Your task to perform on an android device: Search for the best selling jewelry on Etsy. Image 0: 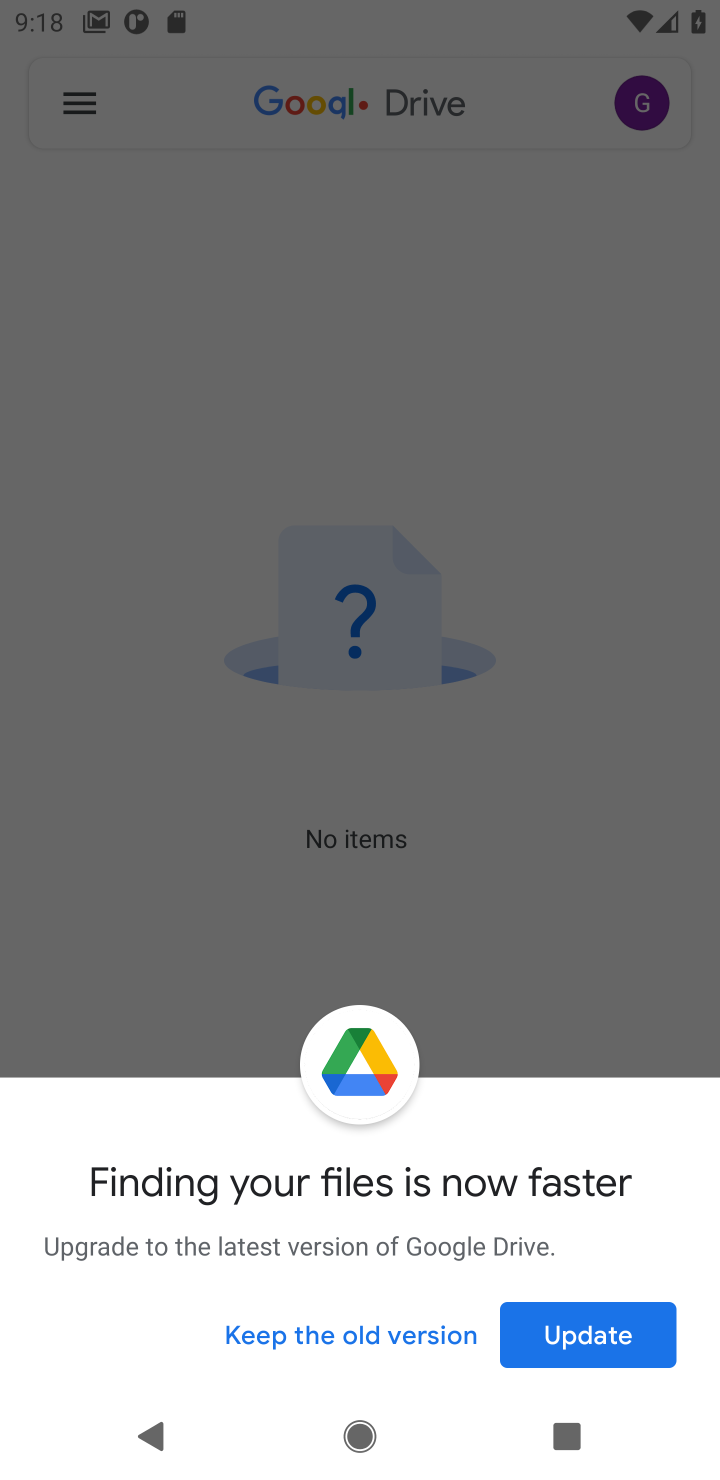
Step 0: press home button
Your task to perform on an android device: Search for the best selling jewelry on Etsy. Image 1: 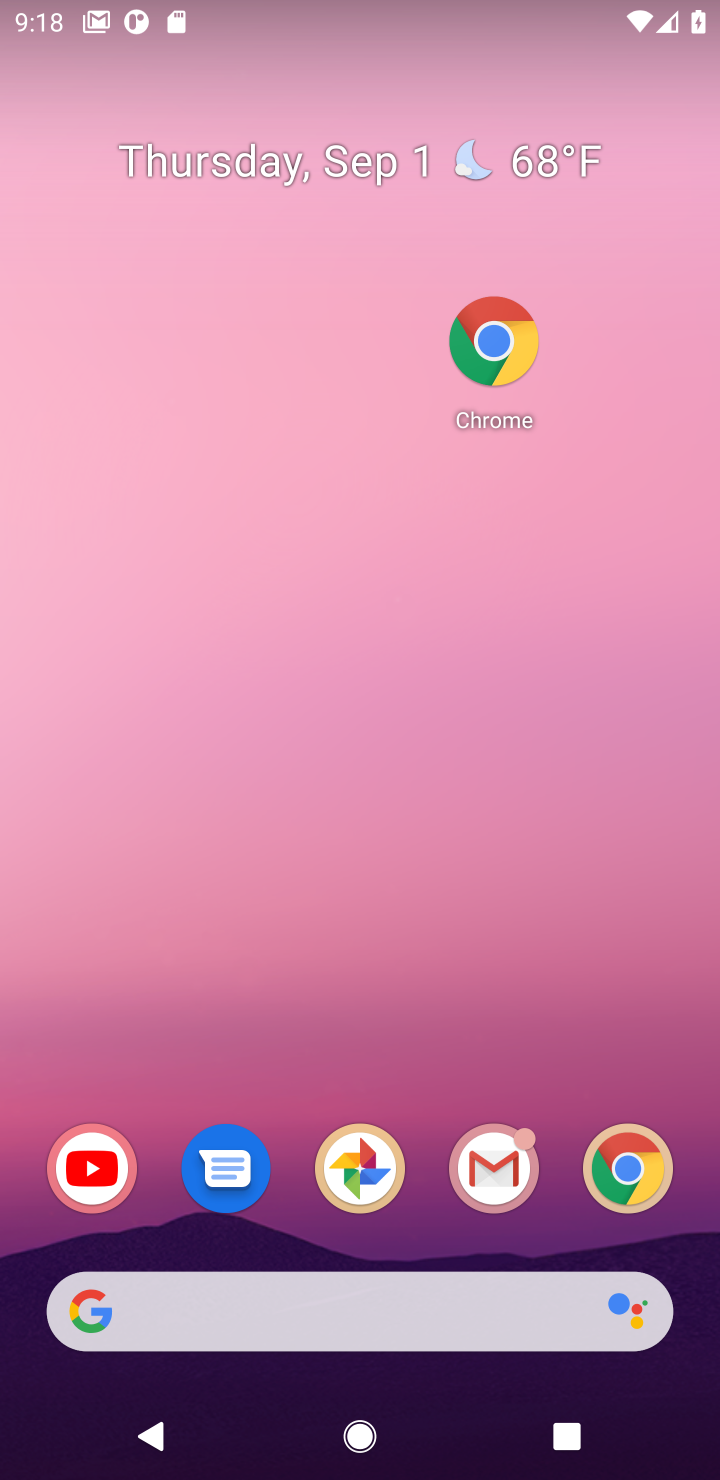
Step 1: click (299, 350)
Your task to perform on an android device: Search for the best selling jewelry on Etsy. Image 2: 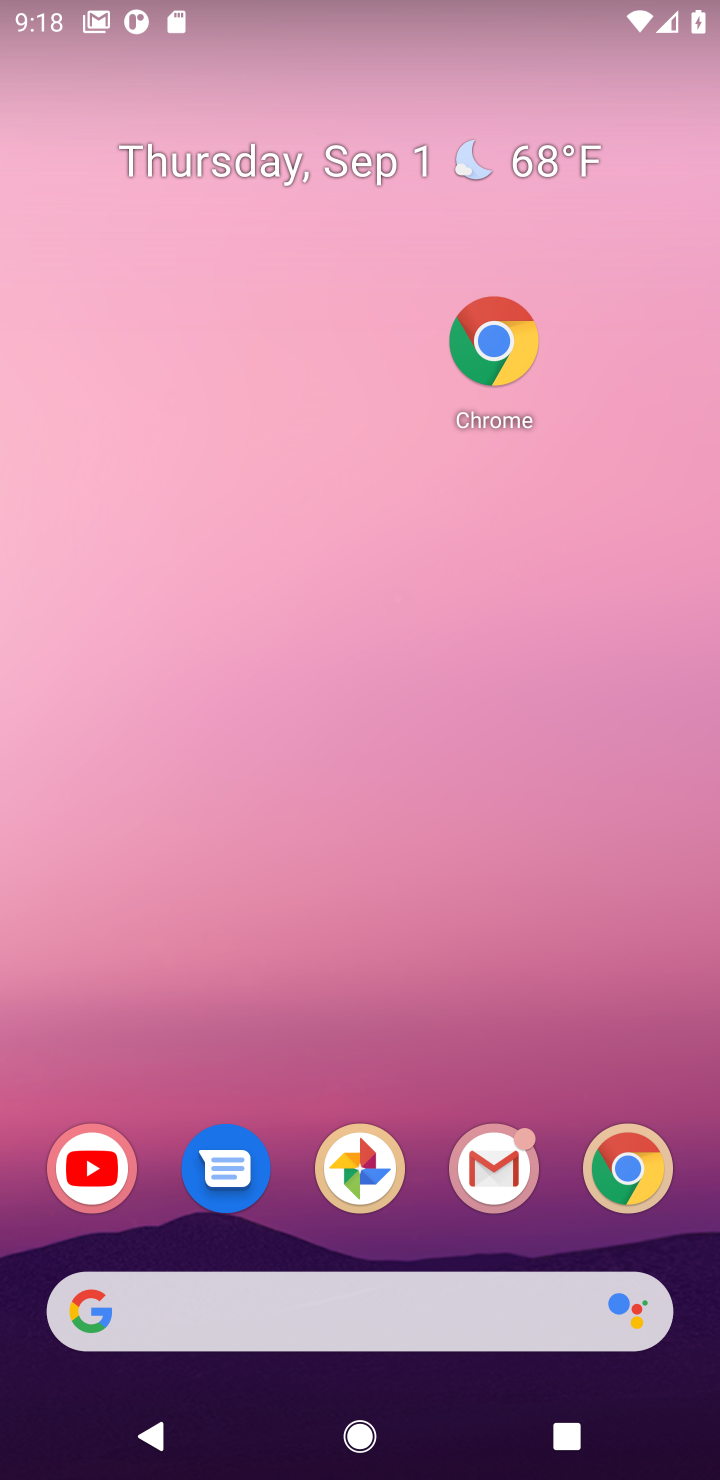
Step 2: drag from (332, 1240) to (370, 539)
Your task to perform on an android device: Search for the best selling jewelry on Etsy. Image 3: 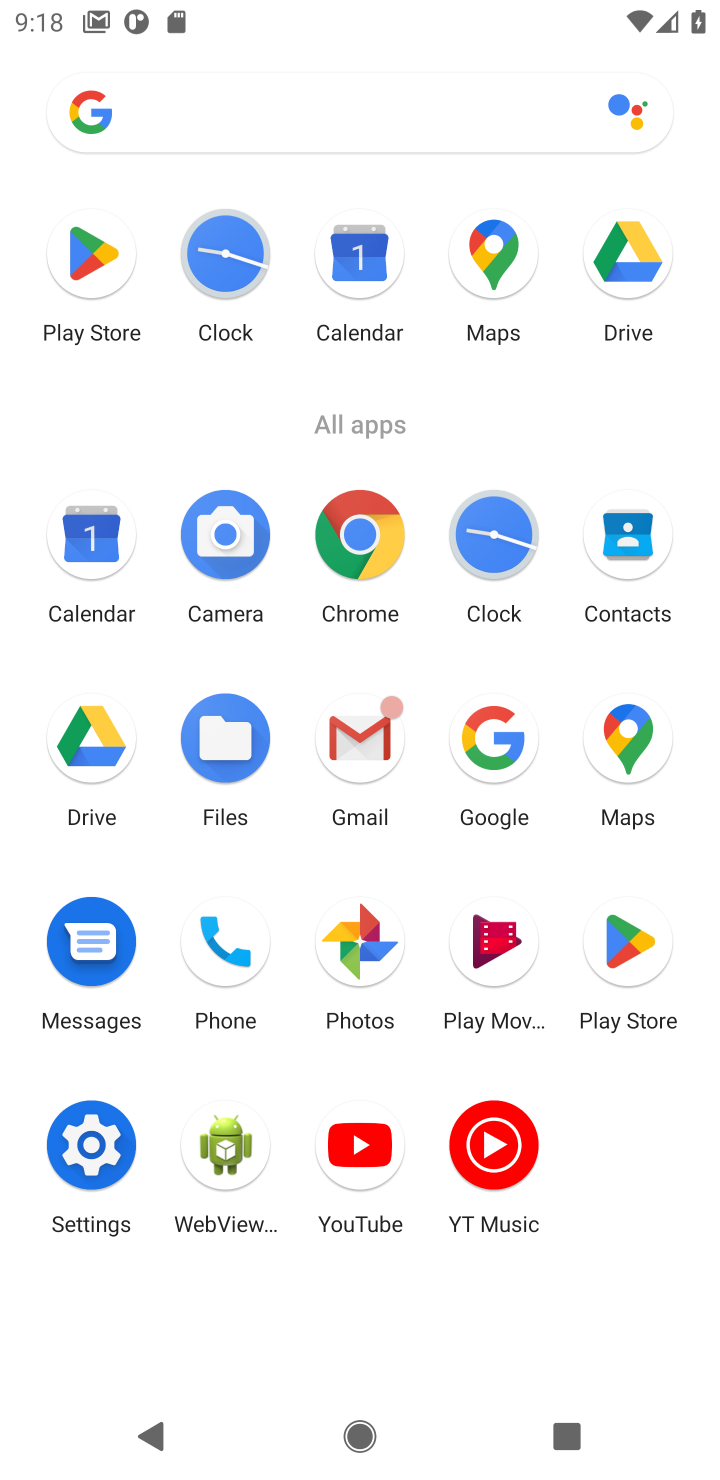
Step 3: click (477, 730)
Your task to perform on an android device: Search for the best selling jewelry on Etsy. Image 4: 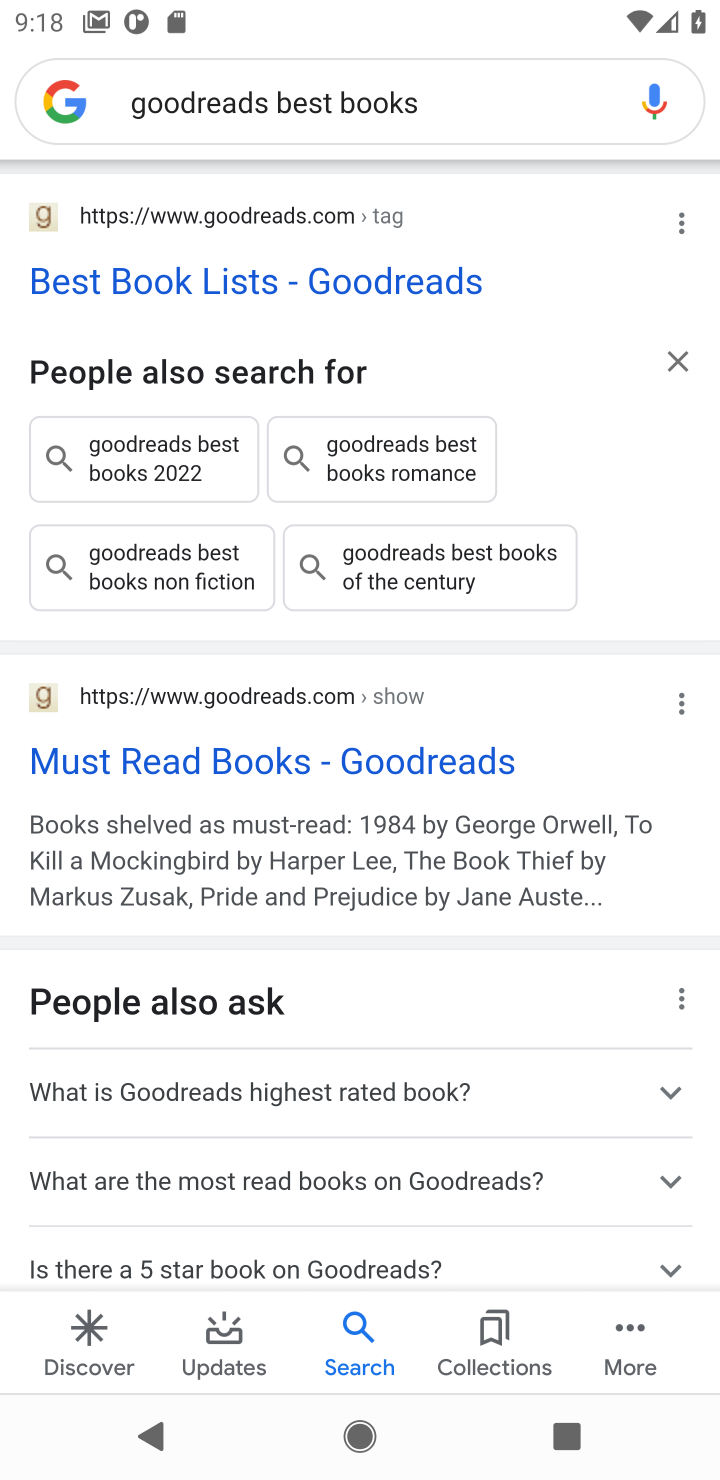
Step 4: click (460, 100)
Your task to perform on an android device: Search for the best selling jewelry on Etsy. Image 5: 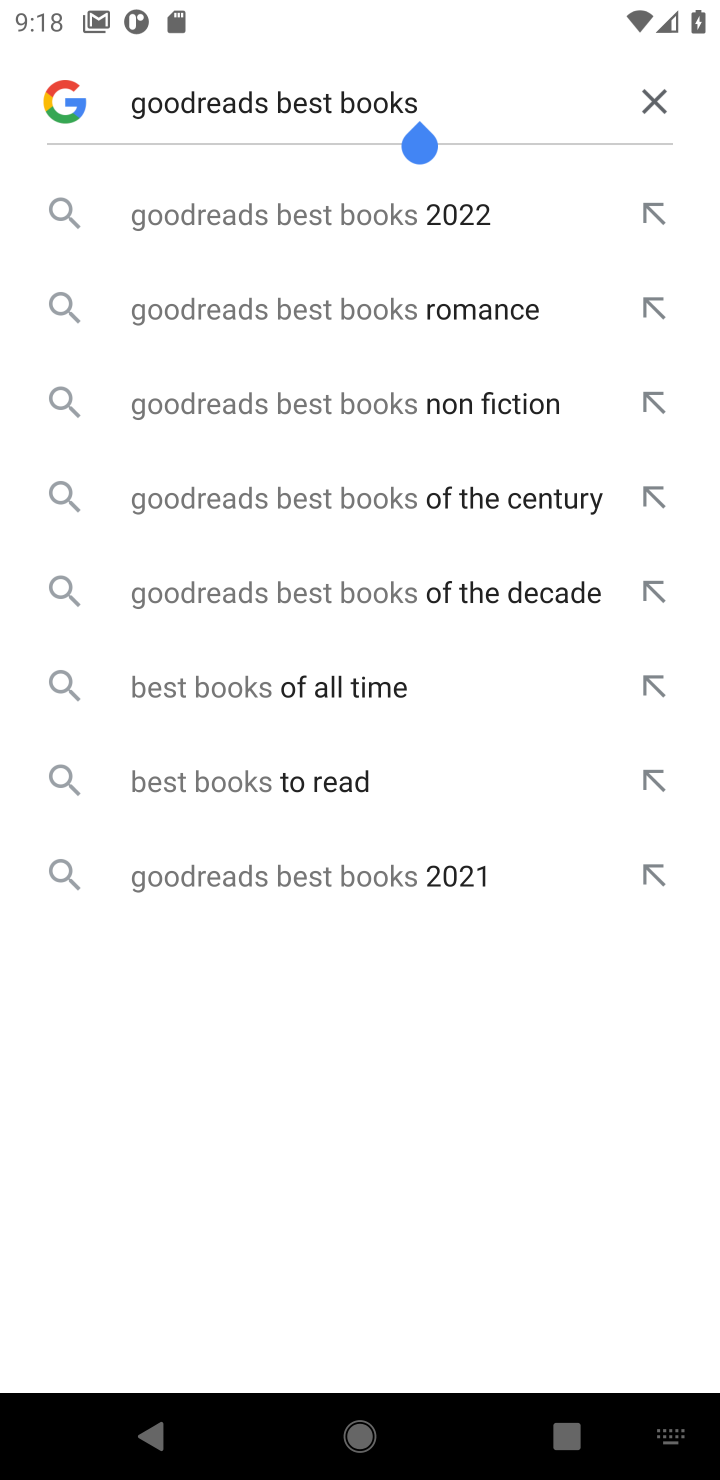
Step 5: click (637, 93)
Your task to perform on an android device: Search for the best selling jewelry on Etsy. Image 6: 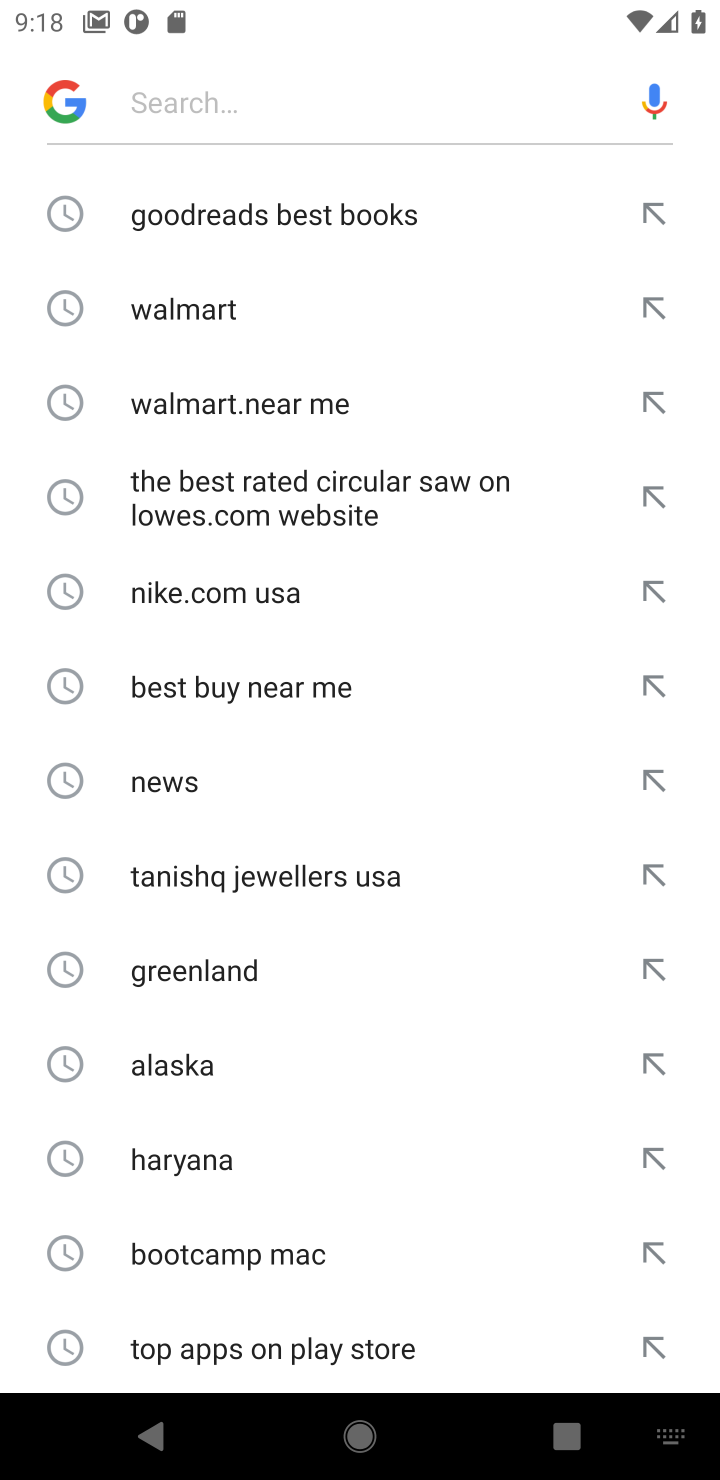
Step 6: click (360, 102)
Your task to perform on an android device: Search for the best selling jewelry on Etsy. Image 7: 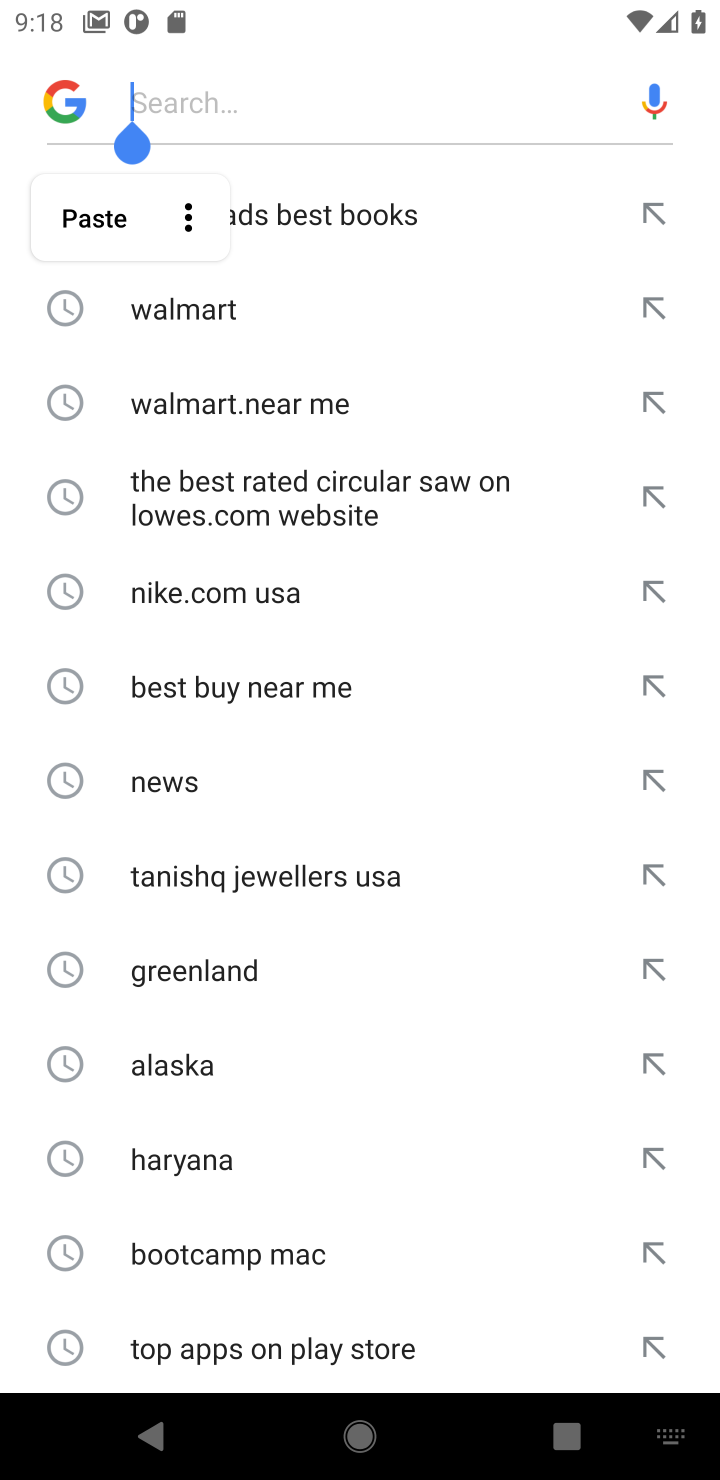
Step 7: type "Etsy "
Your task to perform on an android device: Search for the best selling jewelry on Etsy. Image 8: 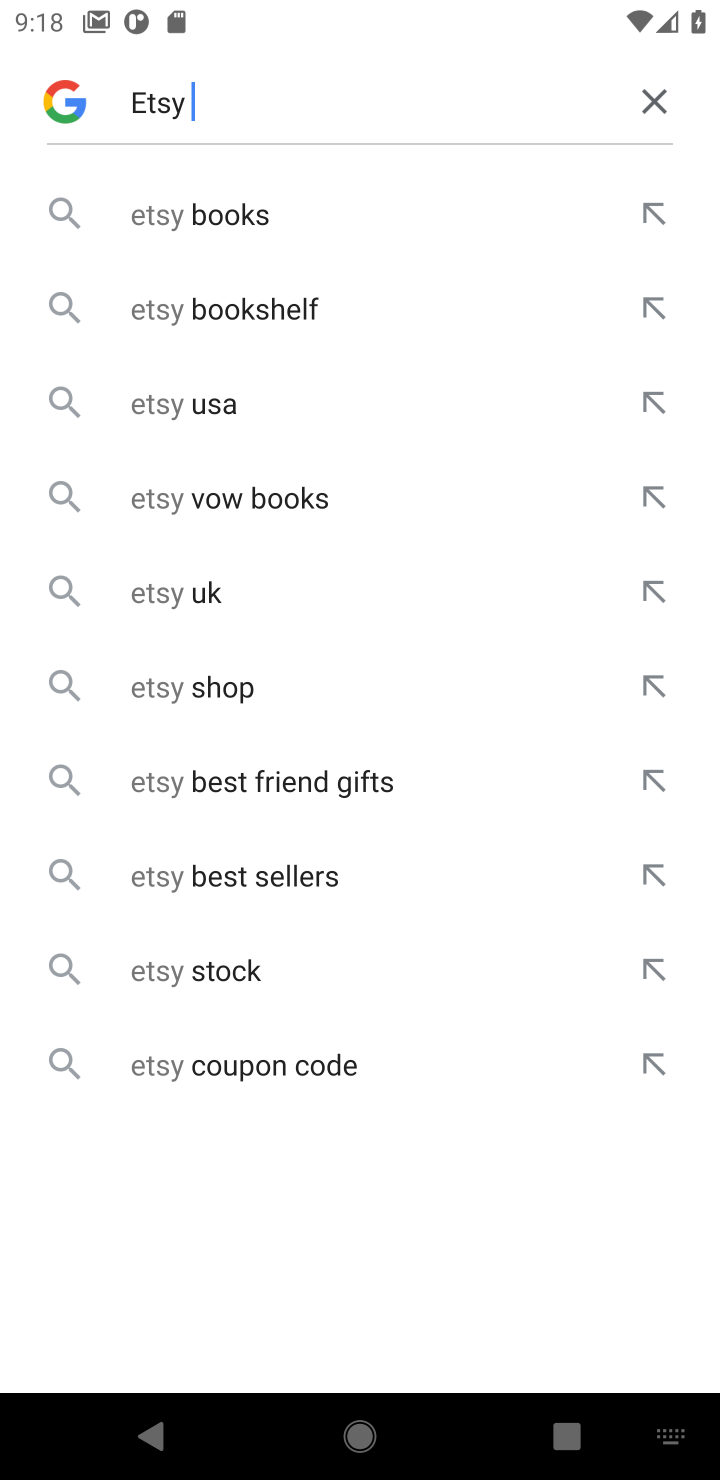
Step 8: click (220, 669)
Your task to perform on an android device: Search for the best selling jewelry on Etsy. Image 9: 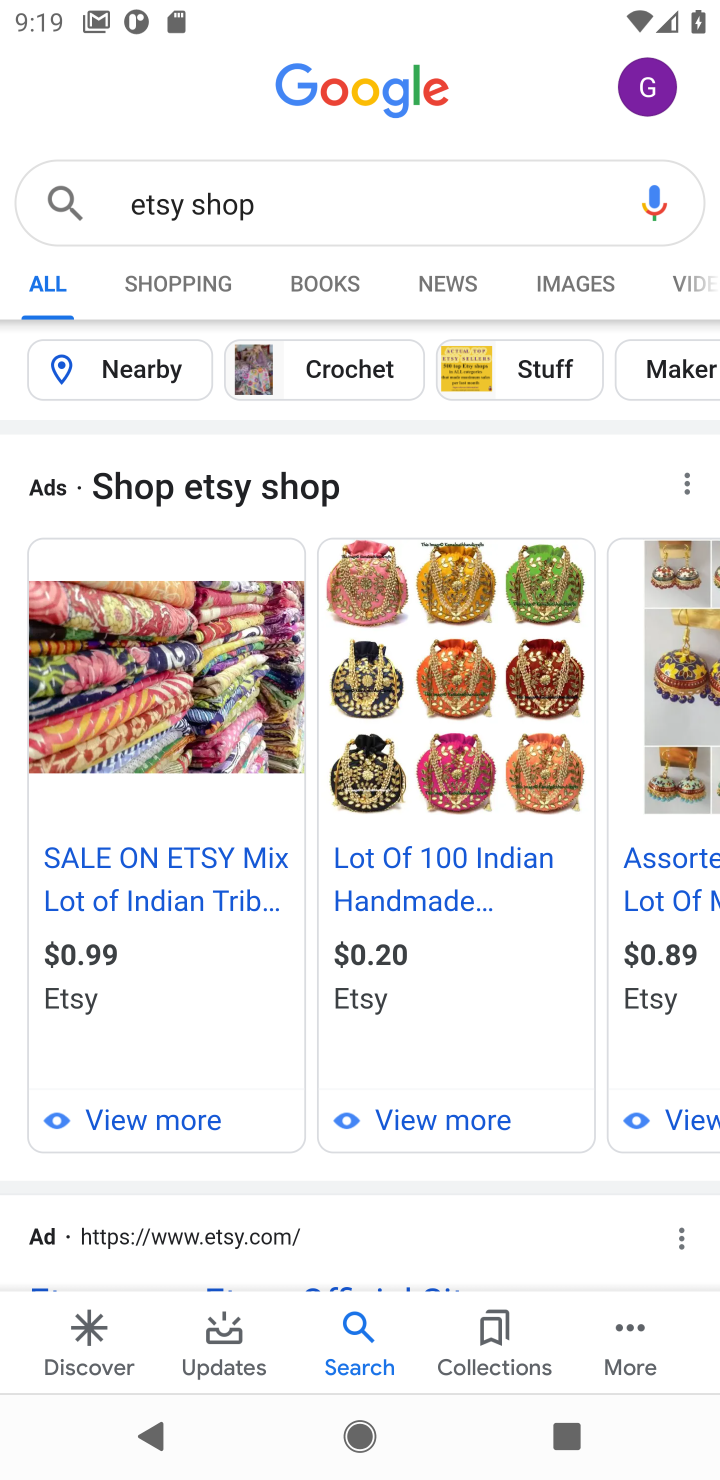
Step 9: drag from (296, 1241) to (343, 485)
Your task to perform on an android device: Search for the best selling jewelry on Etsy. Image 10: 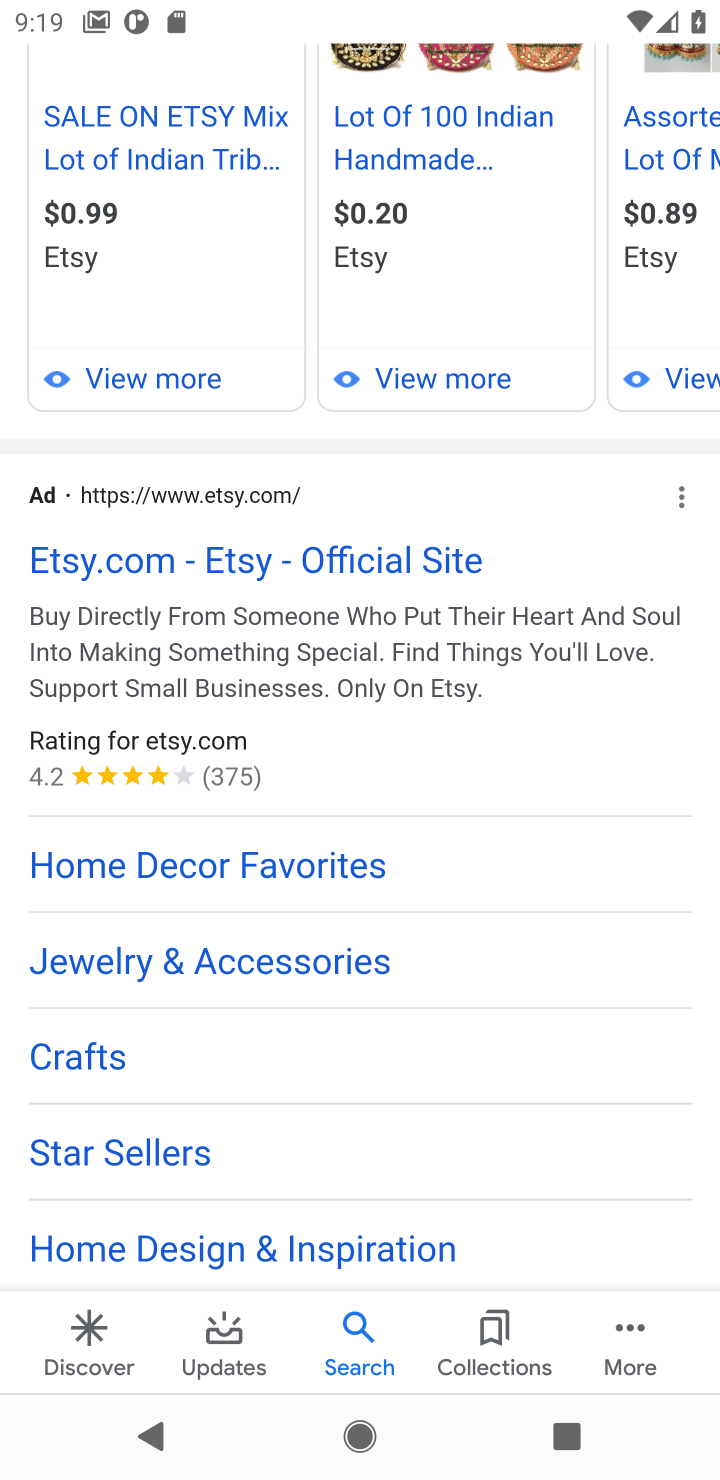
Step 10: click (232, 561)
Your task to perform on an android device: Search for the best selling jewelry on Etsy. Image 11: 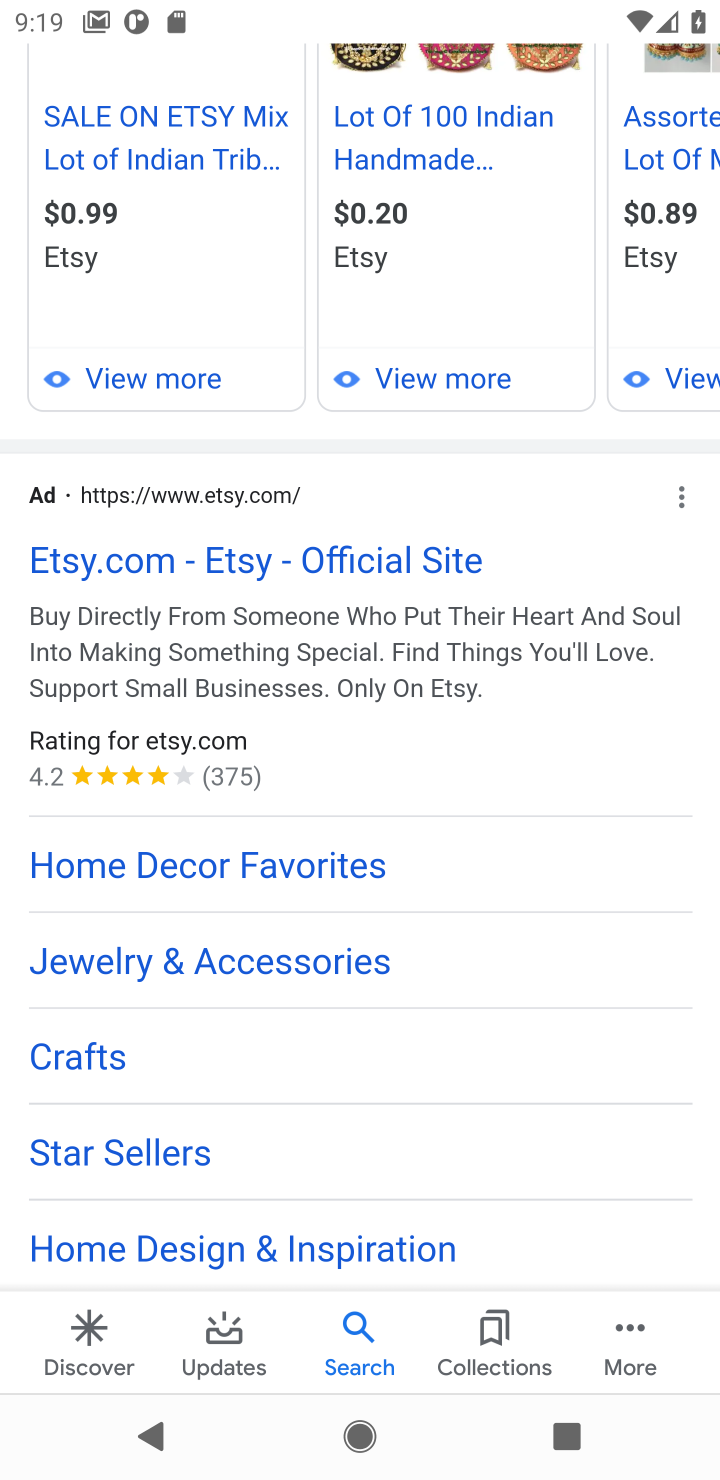
Step 11: click (241, 554)
Your task to perform on an android device: Search for the best selling jewelry on Etsy. Image 12: 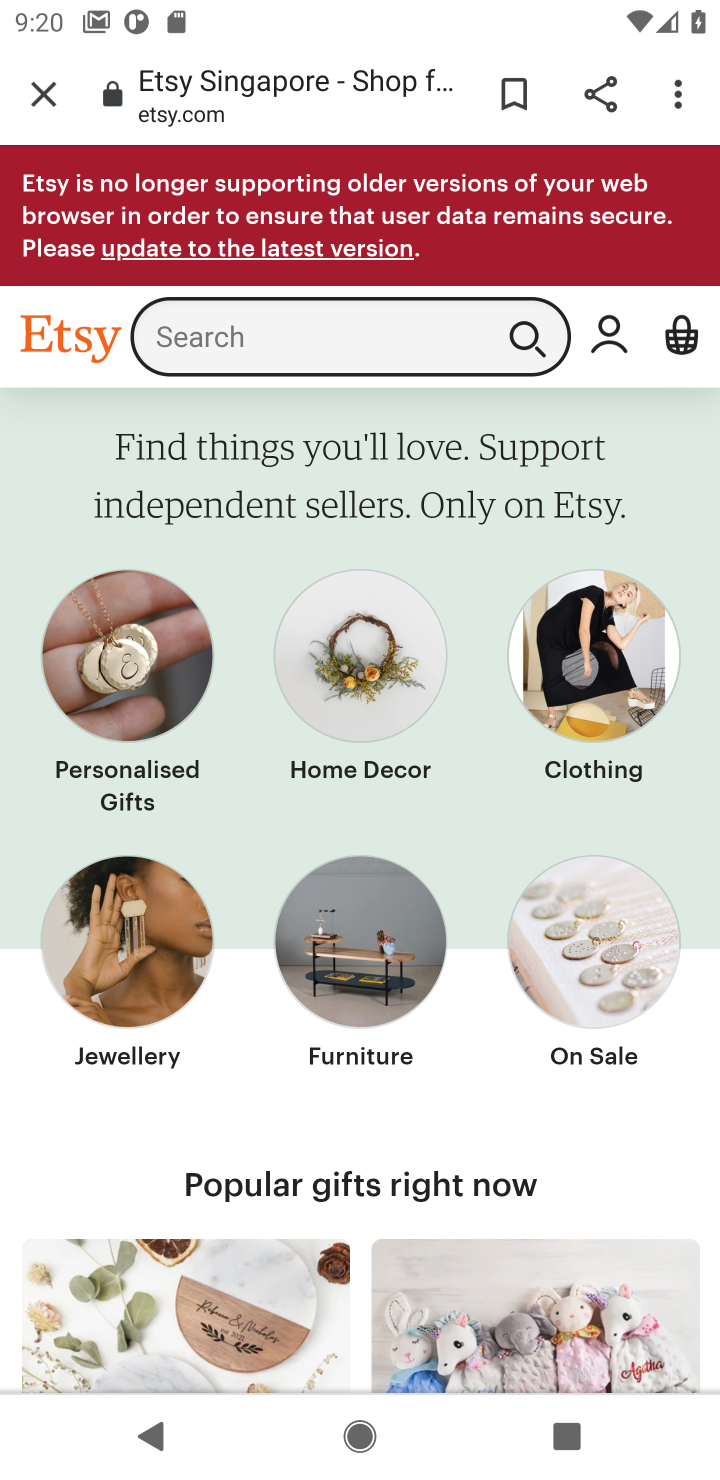
Step 12: click (325, 346)
Your task to perform on an android device: Search for the best selling jewelry on Etsy. Image 13: 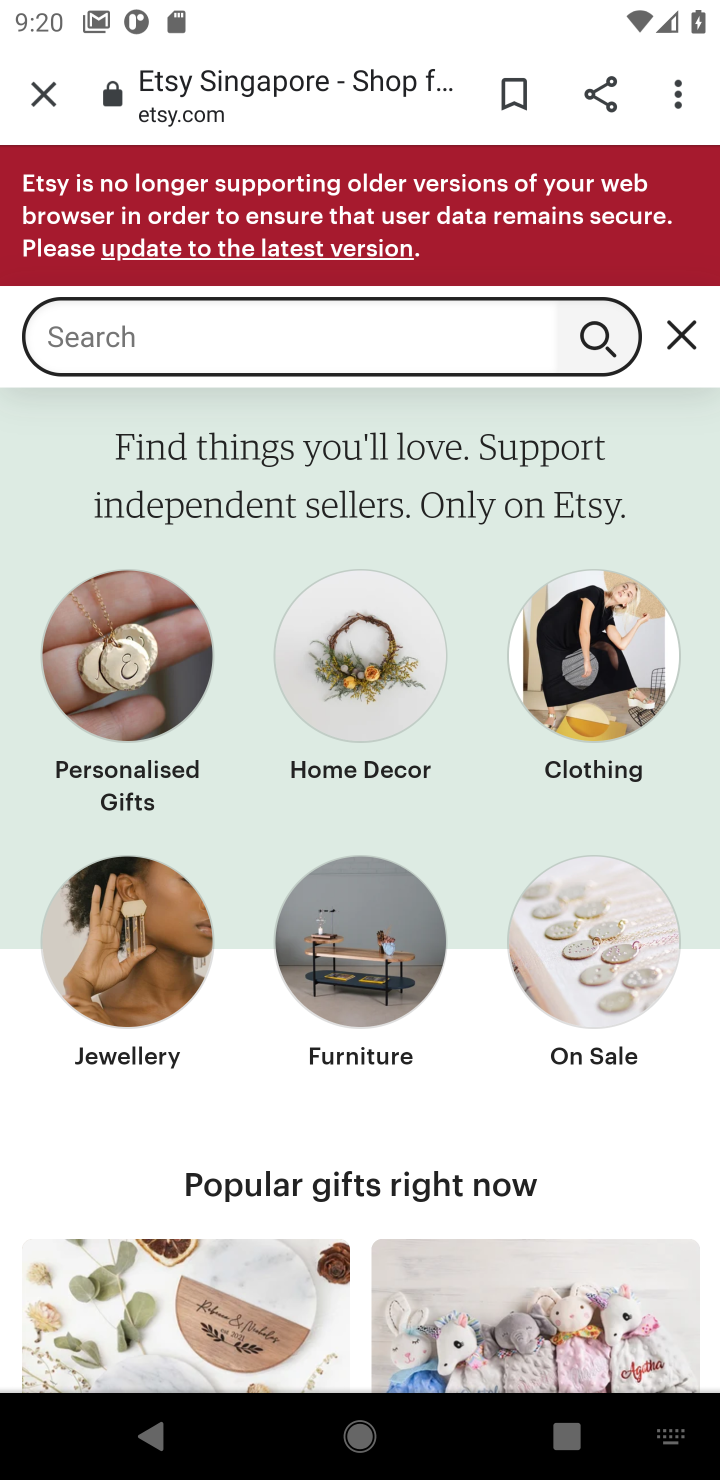
Step 13: type "the best selling jewelry "
Your task to perform on an android device: Search for the best selling jewelry on Etsy. Image 14: 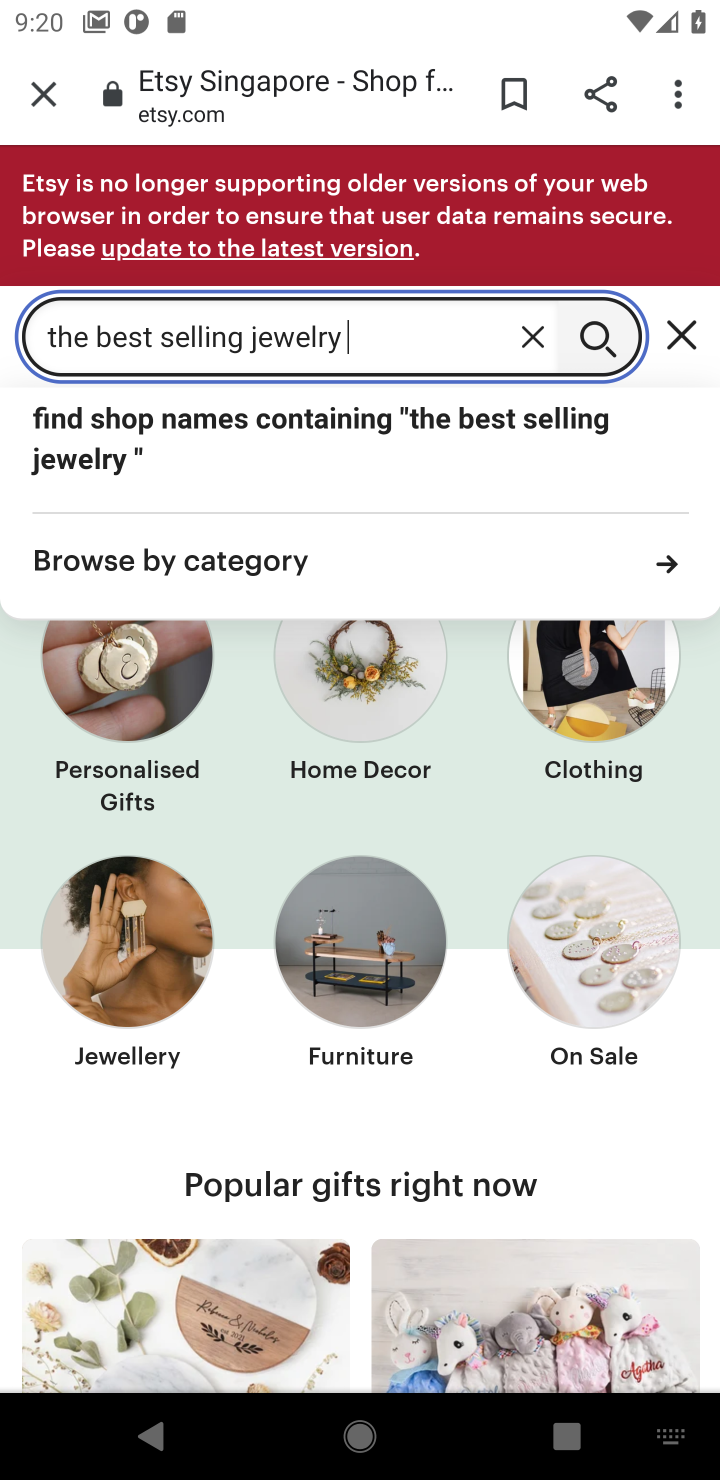
Step 14: click (256, 442)
Your task to perform on an android device: Search for the best selling jewelry on Etsy. Image 15: 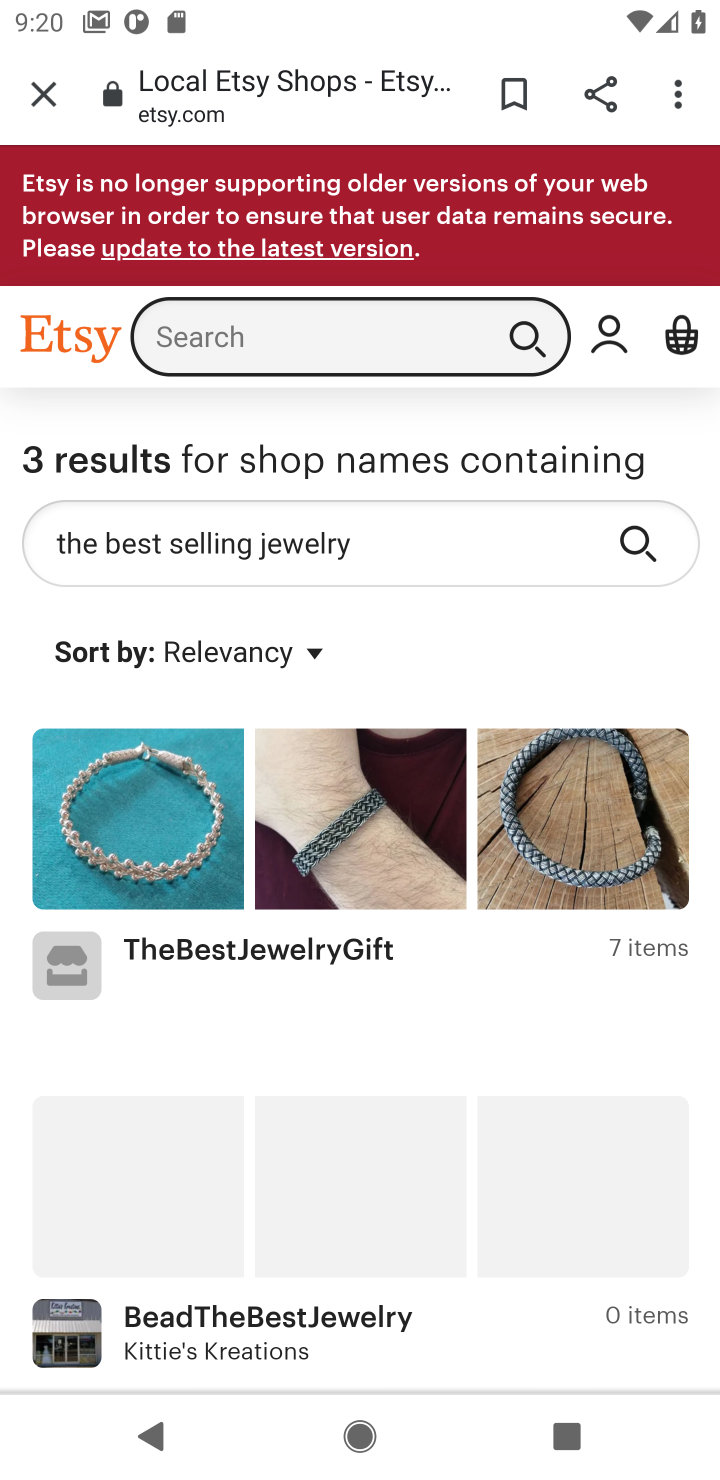
Step 15: task complete